Your task to perform on an android device: See recent photos Image 0: 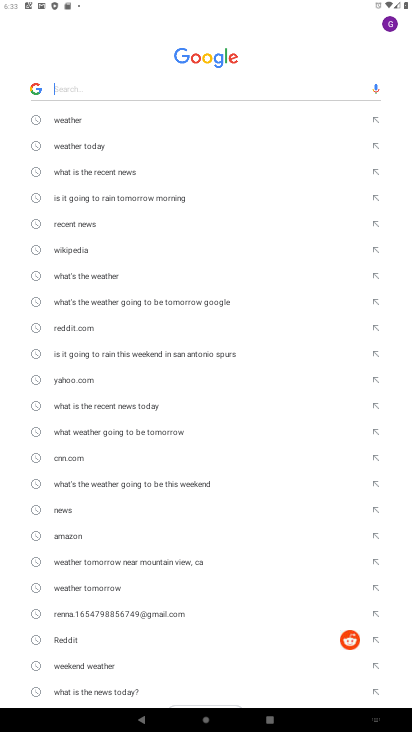
Step 0: press home button
Your task to perform on an android device: See recent photos Image 1: 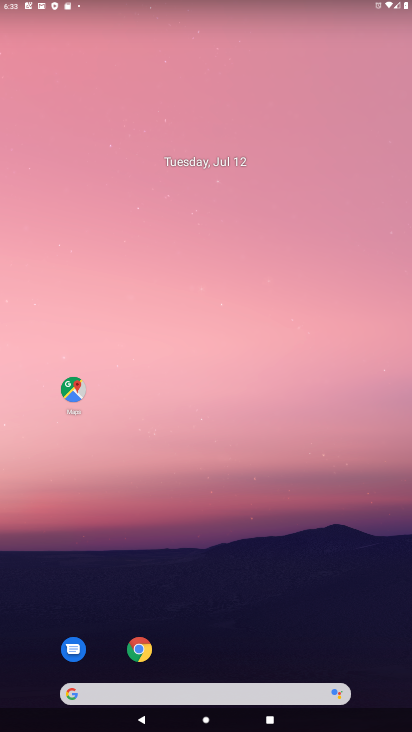
Step 1: drag from (228, 690) to (242, 275)
Your task to perform on an android device: See recent photos Image 2: 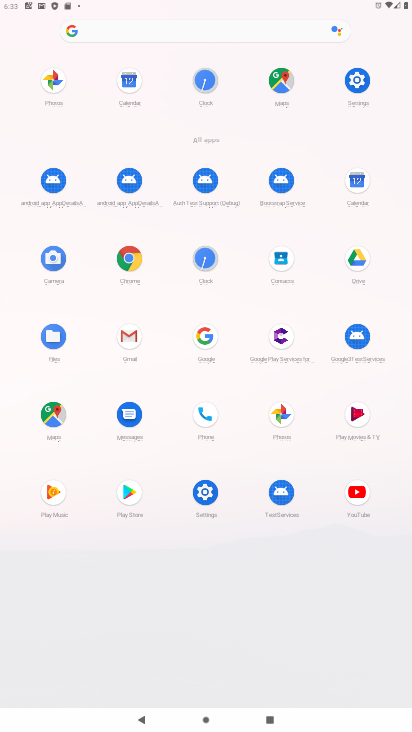
Step 2: click (285, 416)
Your task to perform on an android device: See recent photos Image 3: 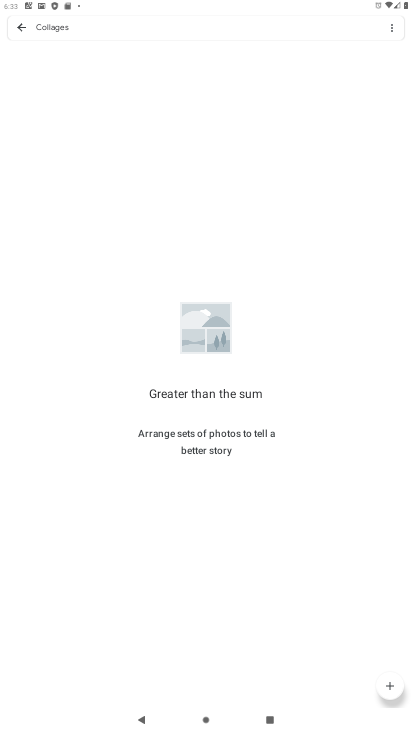
Step 3: press back button
Your task to perform on an android device: See recent photos Image 4: 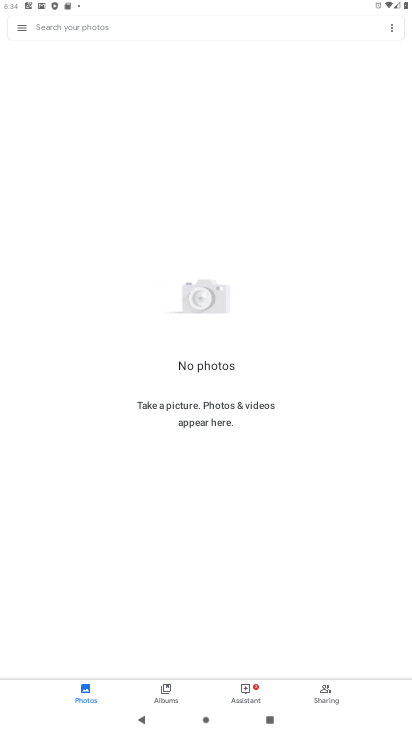
Step 4: click (168, 695)
Your task to perform on an android device: See recent photos Image 5: 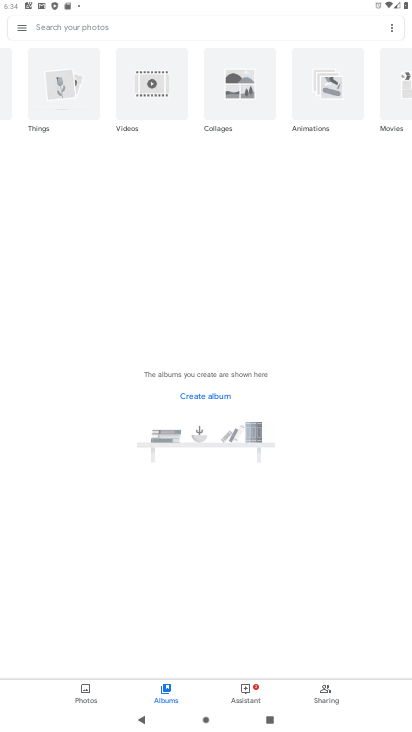
Step 5: click (234, 24)
Your task to perform on an android device: See recent photos Image 6: 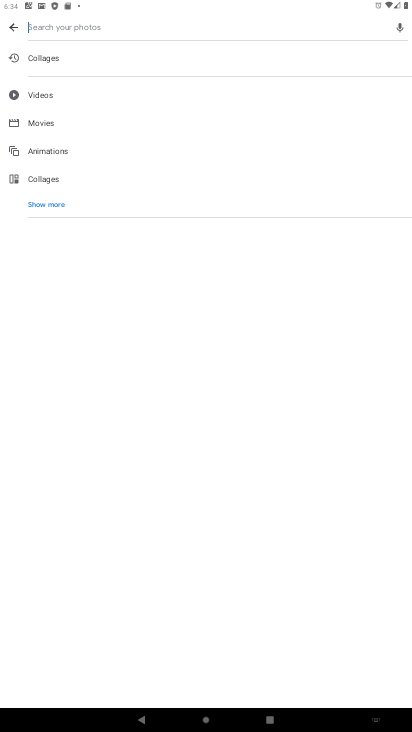
Step 6: click (53, 182)
Your task to perform on an android device: See recent photos Image 7: 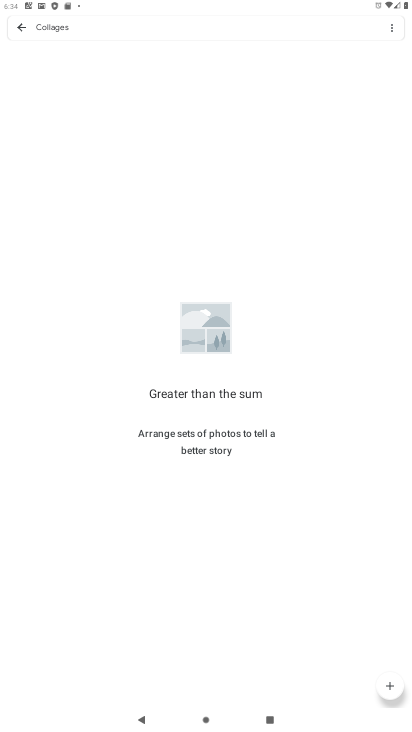
Step 7: task complete